Your task to perform on an android device: What's the weather today? Image 0: 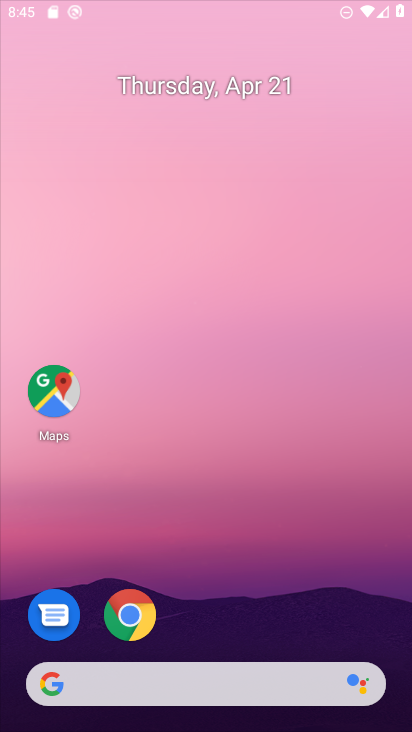
Step 0: click (328, 83)
Your task to perform on an android device: What's the weather today? Image 1: 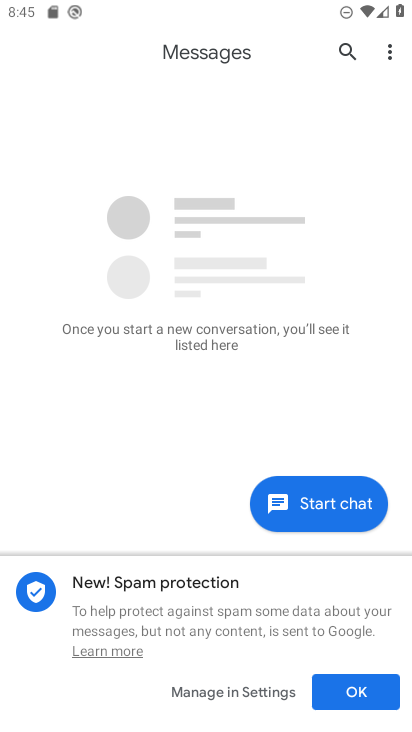
Step 1: press back button
Your task to perform on an android device: What's the weather today? Image 2: 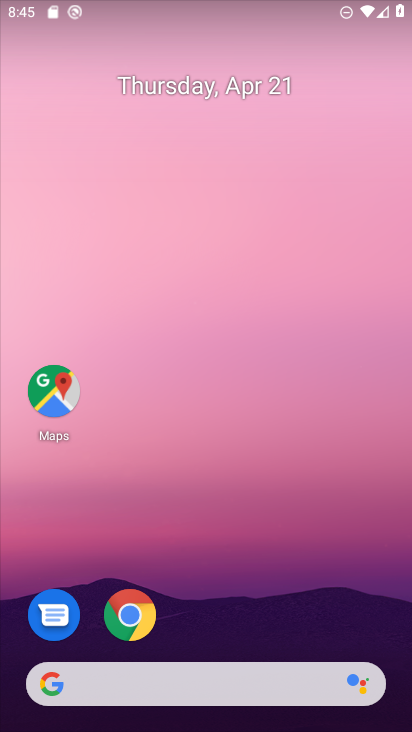
Step 2: drag from (1, 152) to (411, 244)
Your task to perform on an android device: What's the weather today? Image 3: 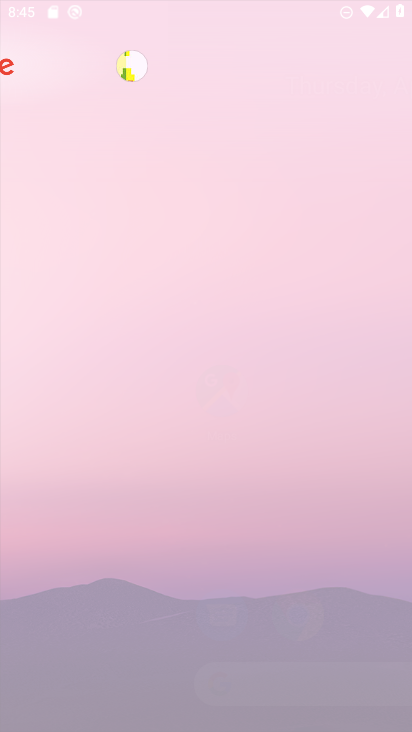
Step 3: drag from (141, 137) to (362, 161)
Your task to perform on an android device: What's the weather today? Image 4: 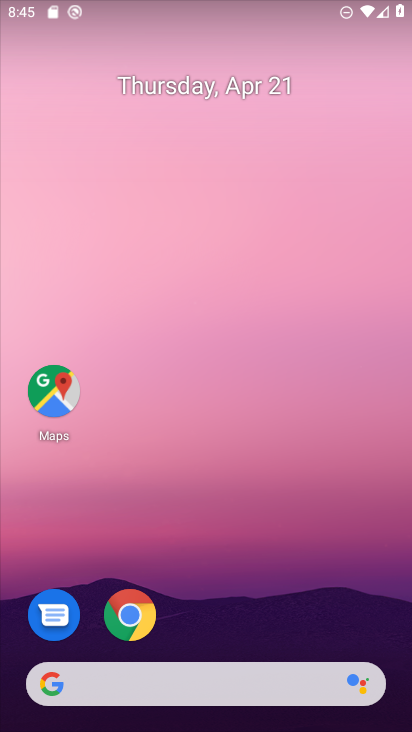
Step 4: drag from (65, 119) to (404, 154)
Your task to perform on an android device: What's the weather today? Image 5: 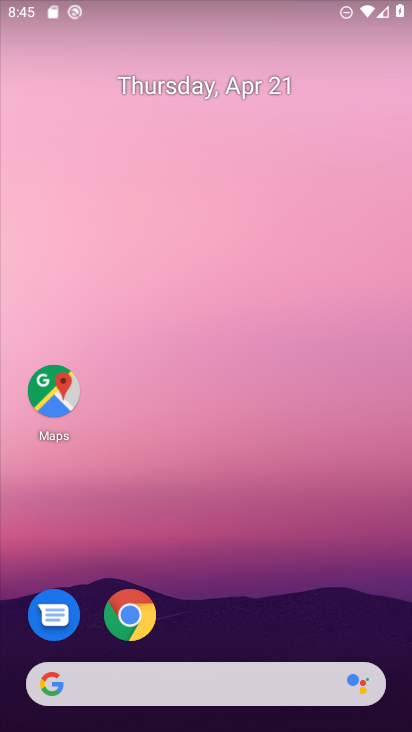
Step 5: drag from (4, 83) to (404, 150)
Your task to perform on an android device: What's the weather today? Image 6: 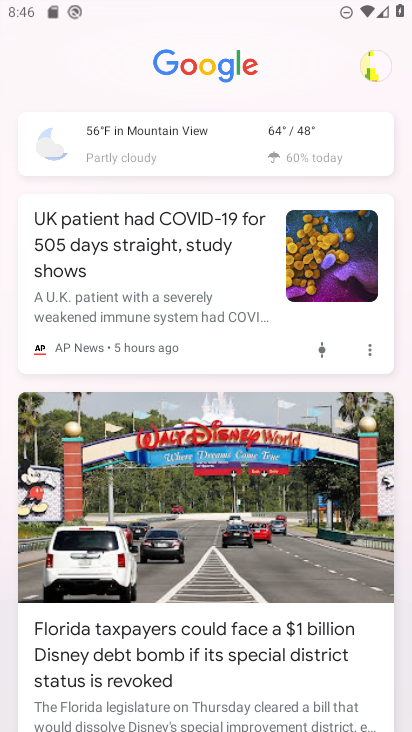
Step 6: click (108, 145)
Your task to perform on an android device: What's the weather today? Image 7: 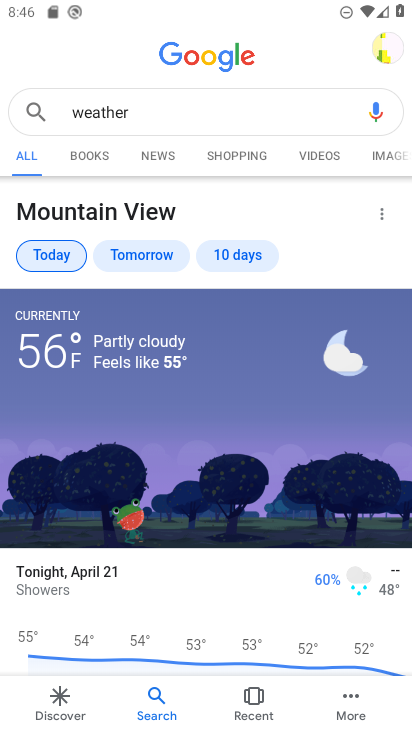
Step 7: click (43, 251)
Your task to perform on an android device: What's the weather today? Image 8: 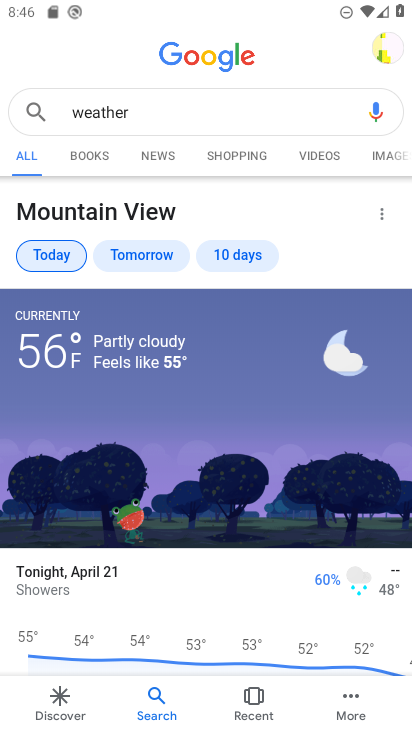
Step 8: task complete